Your task to perform on an android device: What is the news today? Image 0: 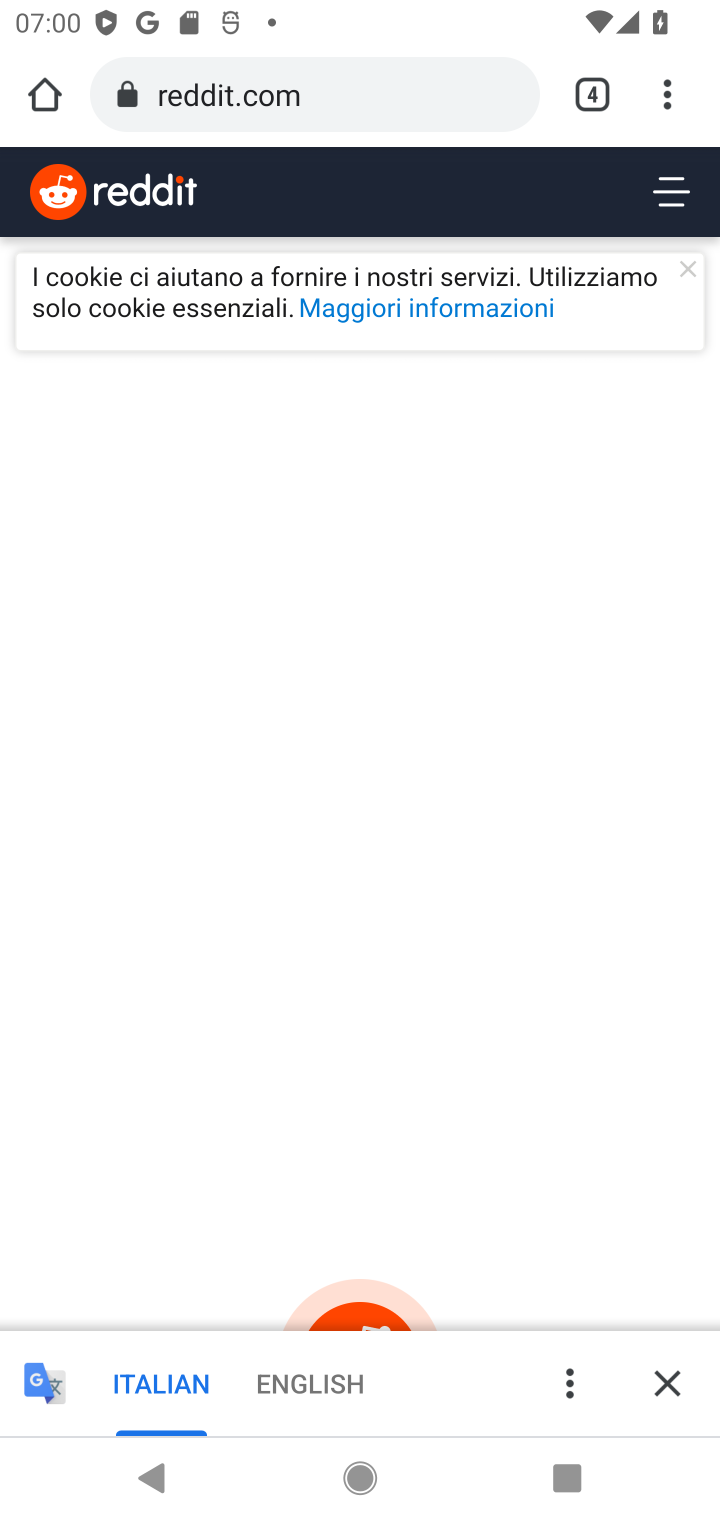
Step 0: press home button
Your task to perform on an android device: What is the news today? Image 1: 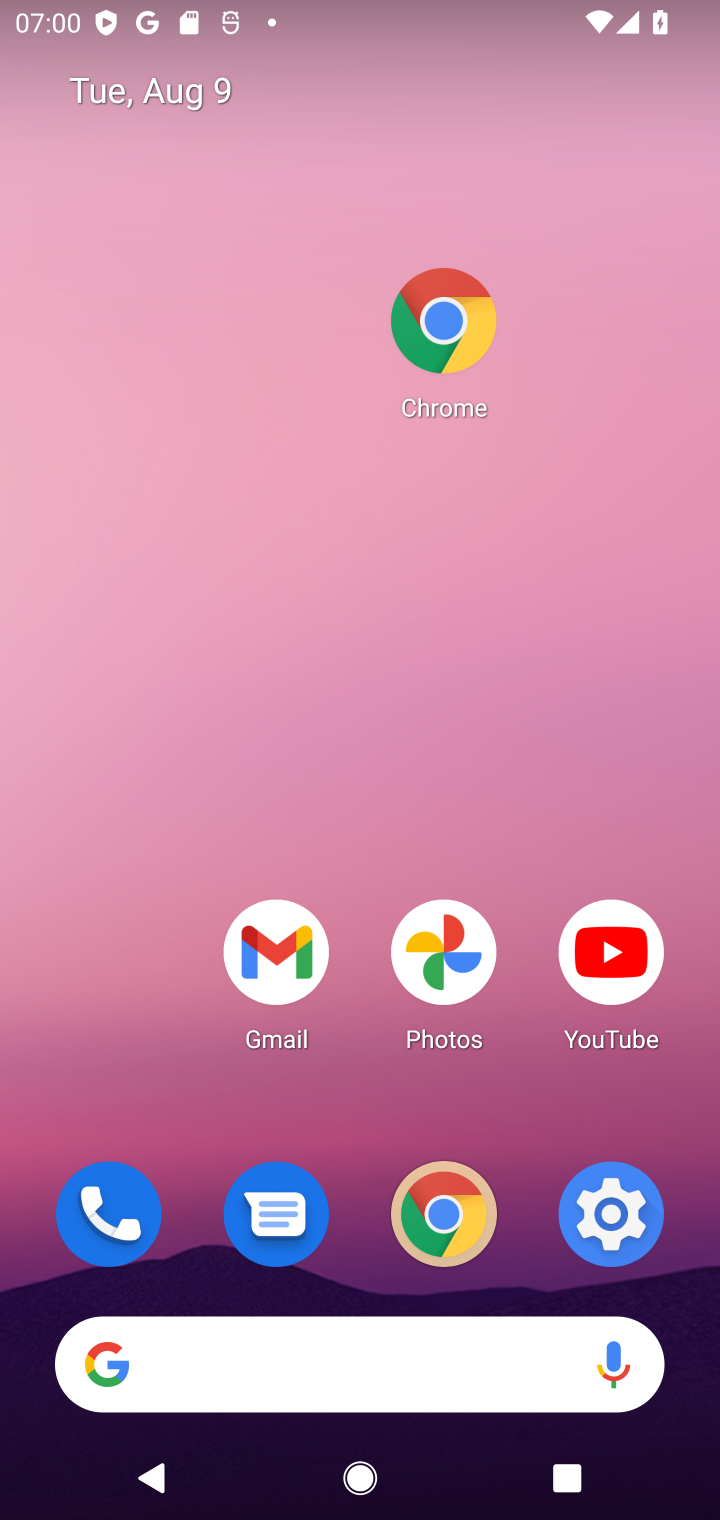
Step 1: click (309, 1364)
Your task to perform on an android device: What is the news today? Image 2: 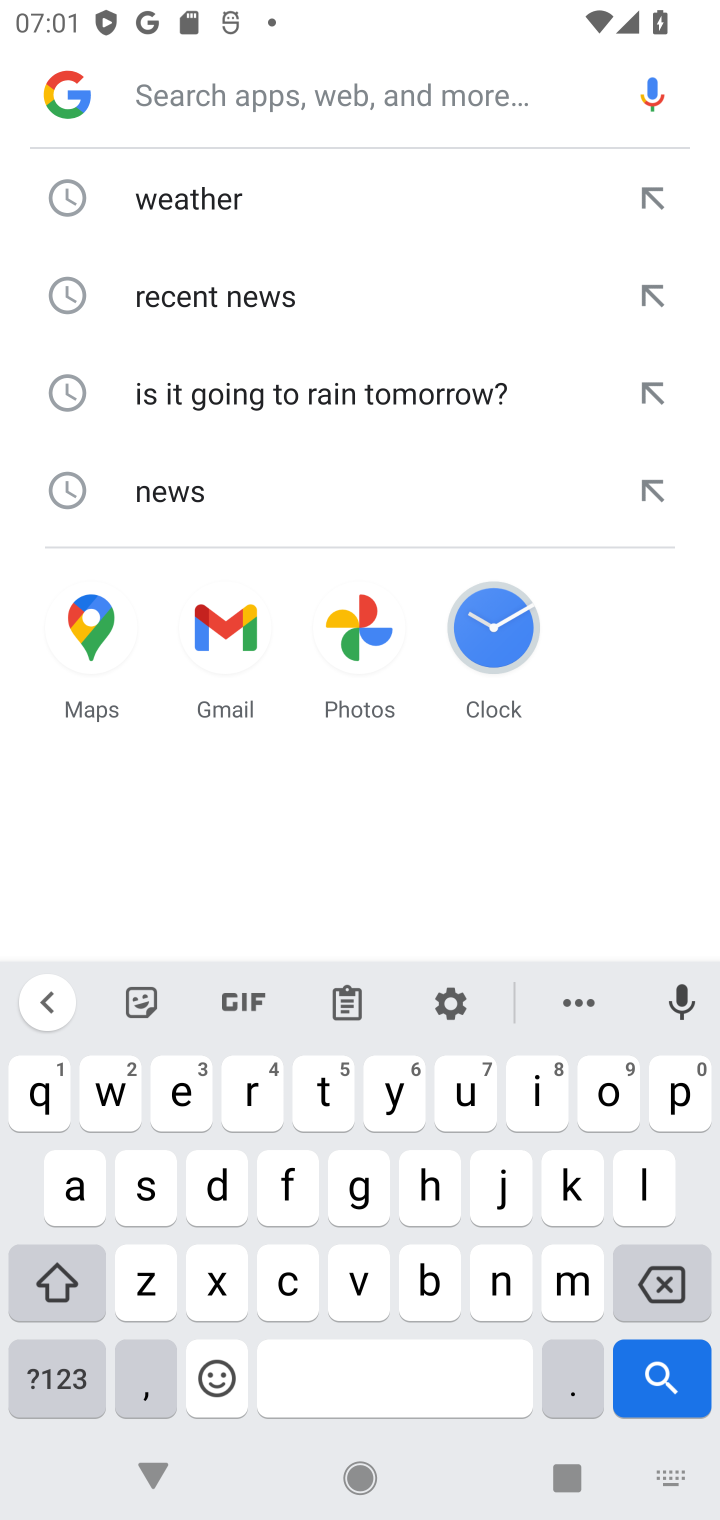
Step 2: click (168, 491)
Your task to perform on an android device: What is the news today? Image 3: 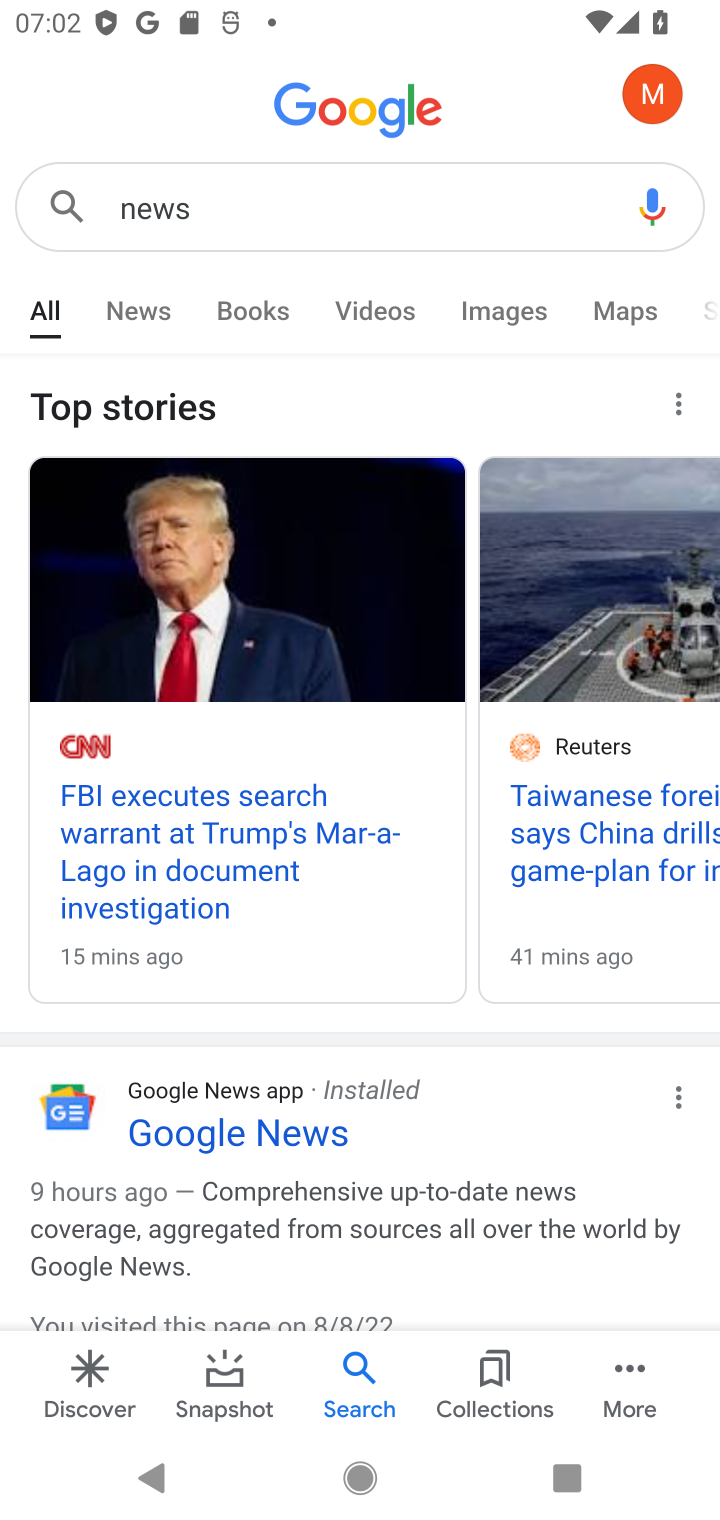
Step 3: task complete